Your task to perform on an android device: open app "DuckDuckGo Privacy Browser" (install if not already installed) Image 0: 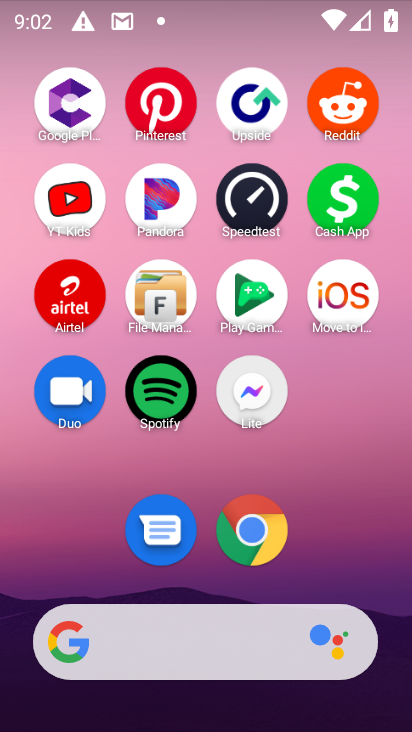
Step 0: drag from (190, 629) to (335, 2)
Your task to perform on an android device: open app "DuckDuckGo Privacy Browser" (install if not already installed) Image 1: 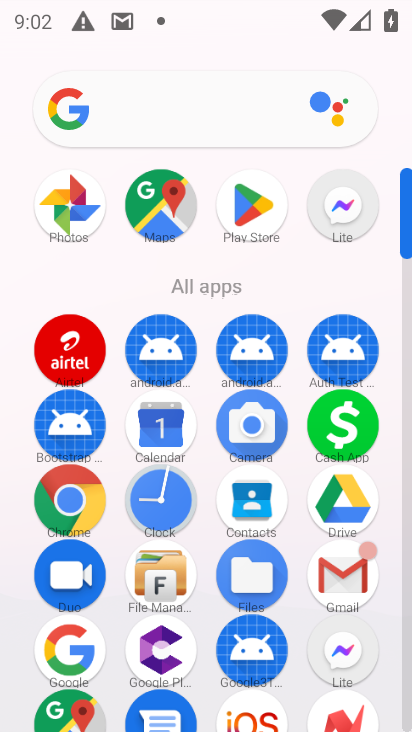
Step 1: click (252, 195)
Your task to perform on an android device: open app "DuckDuckGo Privacy Browser" (install if not already installed) Image 2: 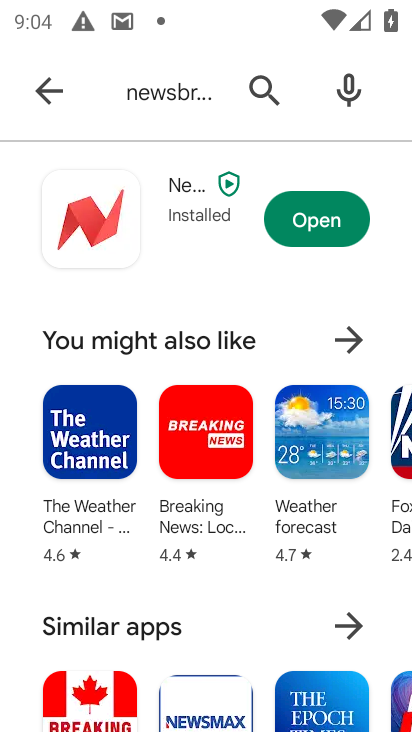
Step 2: click (253, 83)
Your task to perform on an android device: open app "DuckDuckGo Privacy Browser" (install if not already installed) Image 3: 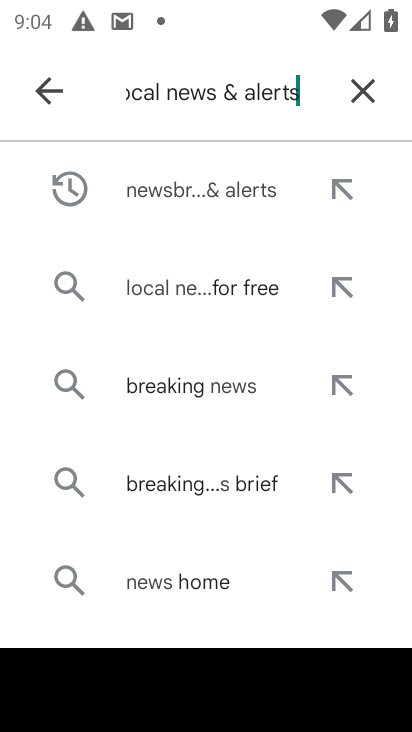
Step 3: click (371, 90)
Your task to perform on an android device: open app "DuckDuckGo Privacy Browser" (install if not already installed) Image 4: 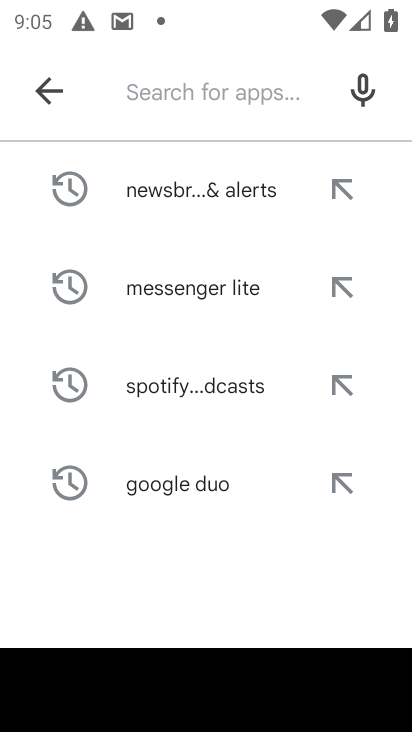
Step 4: type "duckduckgo pricacy "
Your task to perform on an android device: open app "DuckDuckGo Privacy Browser" (install if not already installed) Image 5: 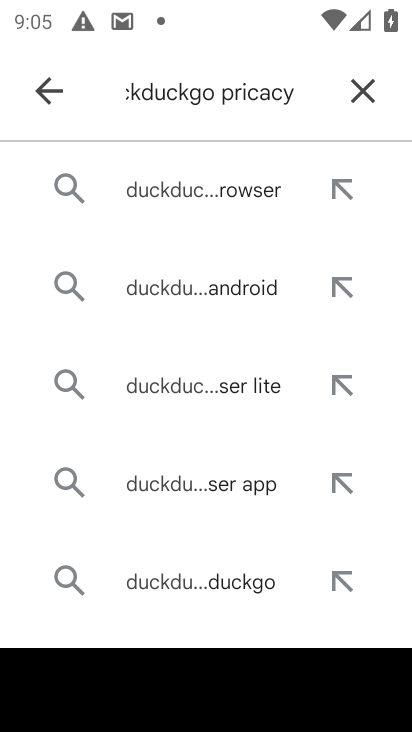
Step 5: type ""
Your task to perform on an android device: open app "DuckDuckGo Privacy Browser" (install if not already installed) Image 6: 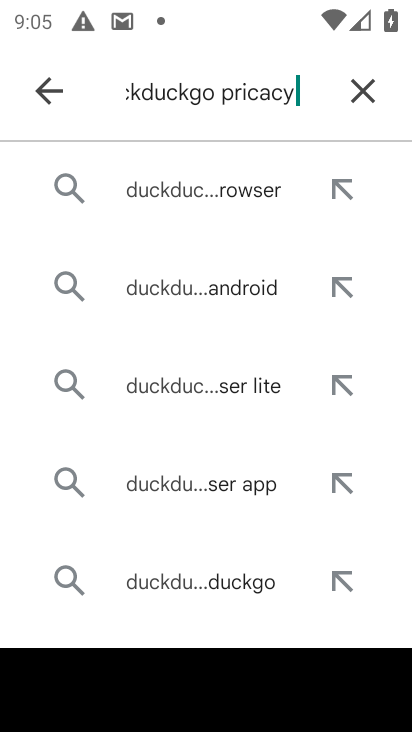
Step 6: type ""
Your task to perform on an android device: open app "DuckDuckGo Privacy Browser" (install if not already installed) Image 7: 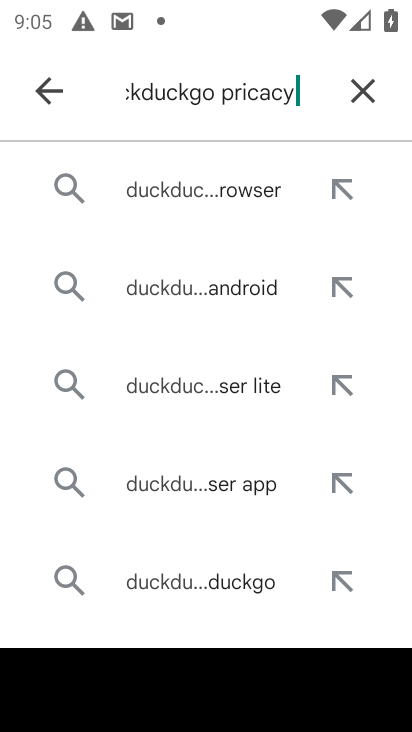
Step 7: press enter
Your task to perform on an android device: open app "DuckDuckGo Privacy Browser" (install if not already installed) Image 8: 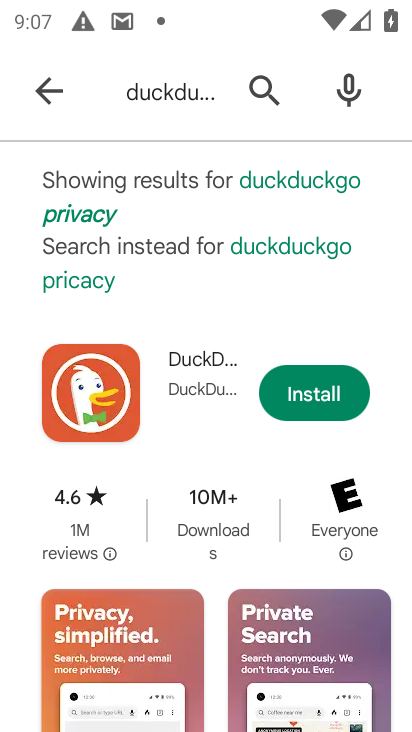
Step 8: click (334, 398)
Your task to perform on an android device: open app "DuckDuckGo Privacy Browser" (install if not already installed) Image 9: 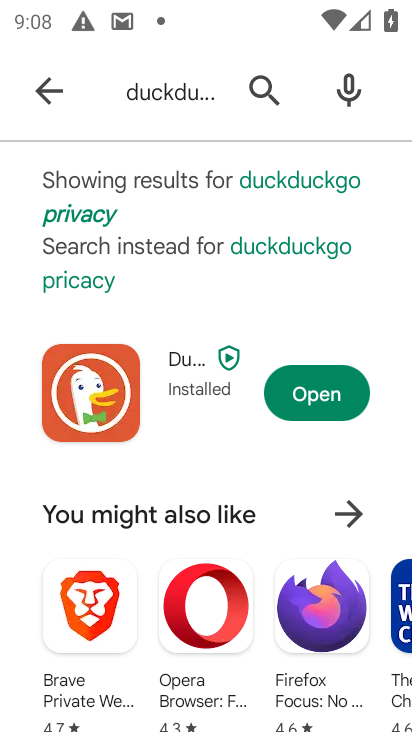
Step 9: click (299, 393)
Your task to perform on an android device: open app "DuckDuckGo Privacy Browser" (install if not already installed) Image 10: 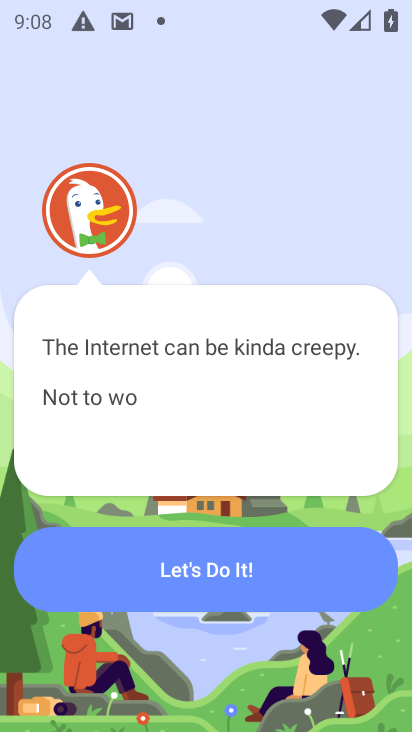
Step 10: press home button
Your task to perform on an android device: open app "DuckDuckGo Privacy Browser" (install if not already installed) Image 11: 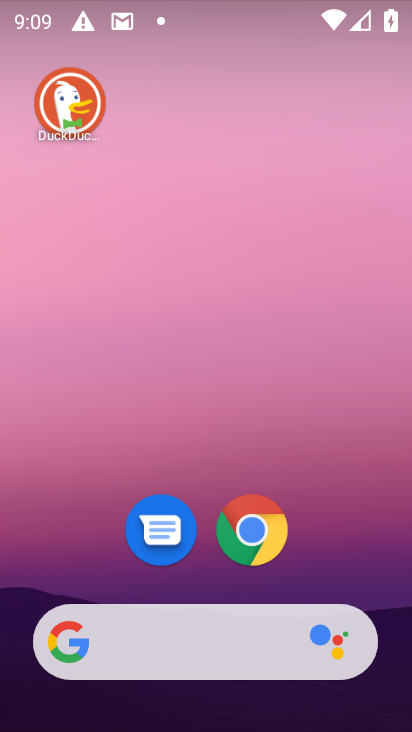
Step 11: drag from (145, 681) to (353, 128)
Your task to perform on an android device: open app "DuckDuckGo Privacy Browser" (install if not already installed) Image 12: 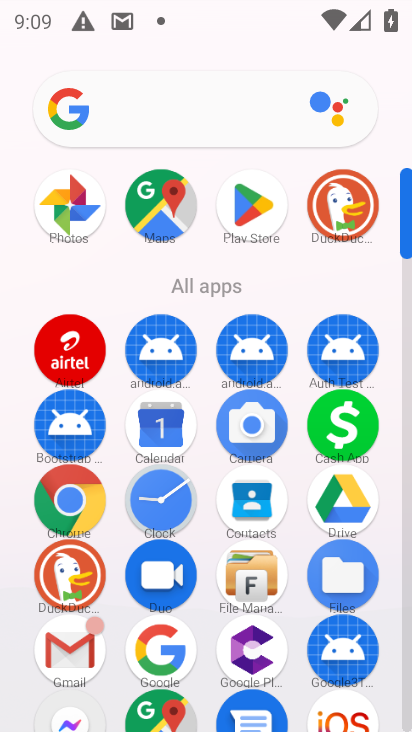
Step 12: click (331, 202)
Your task to perform on an android device: open app "DuckDuckGo Privacy Browser" (install if not already installed) Image 13: 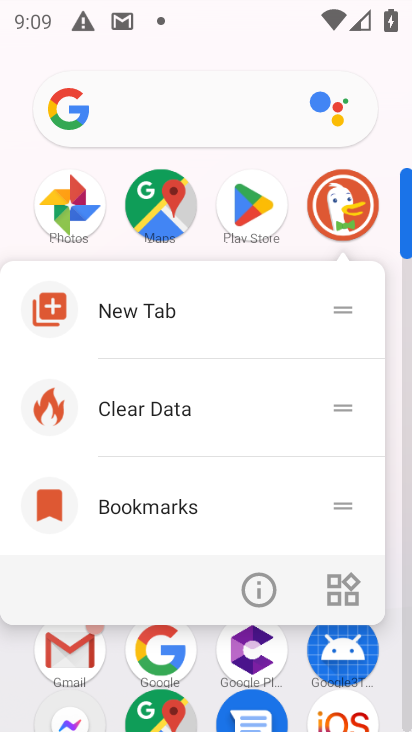
Step 13: click (331, 202)
Your task to perform on an android device: open app "DuckDuckGo Privacy Browser" (install if not already installed) Image 14: 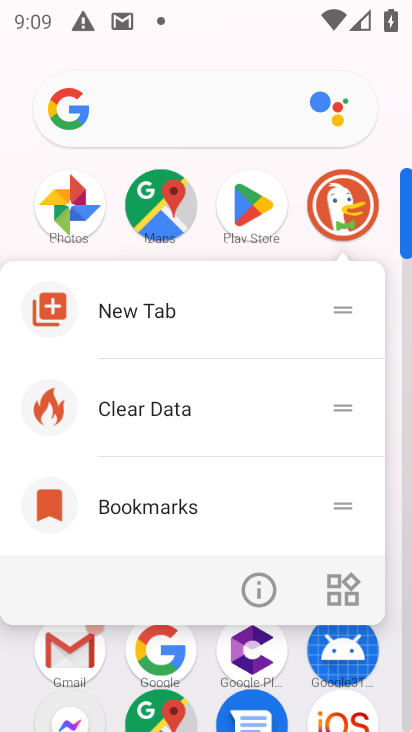
Step 14: click (331, 202)
Your task to perform on an android device: open app "DuckDuckGo Privacy Browser" (install if not already installed) Image 15: 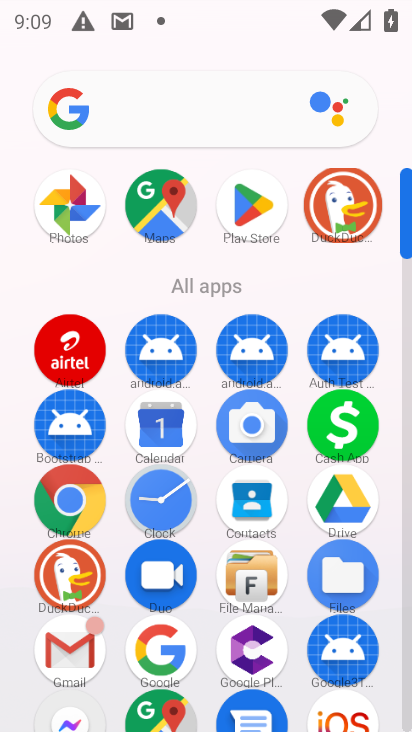
Step 15: click (331, 202)
Your task to perform on an android device: open app "DuckDuckGo Privacy Browser" (install if not already installed) Image 16: 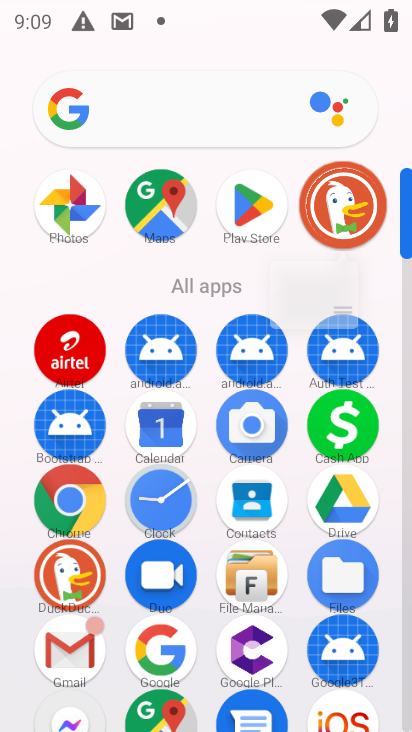
Step 16: click (335, 198)
Your task to perform on an android device: open app "DuckDuckGo Privacy Browser" (install if not already installed) Image 17: 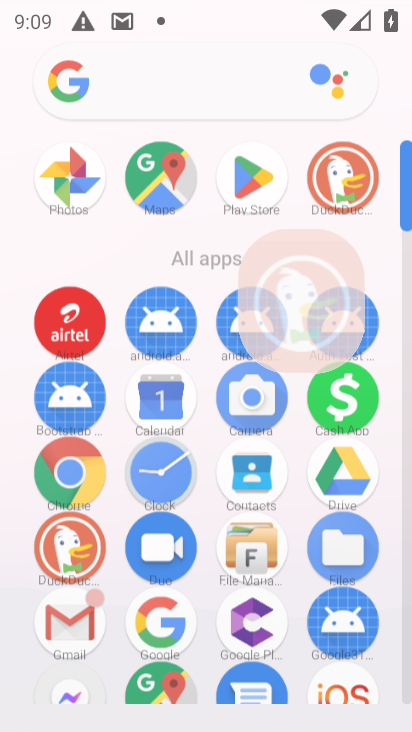
Step 17: click (353, 169)
Your task to perform on an android device: open app "DuckDuckGo Privacy Browser" (install if not already installed) Image 18: 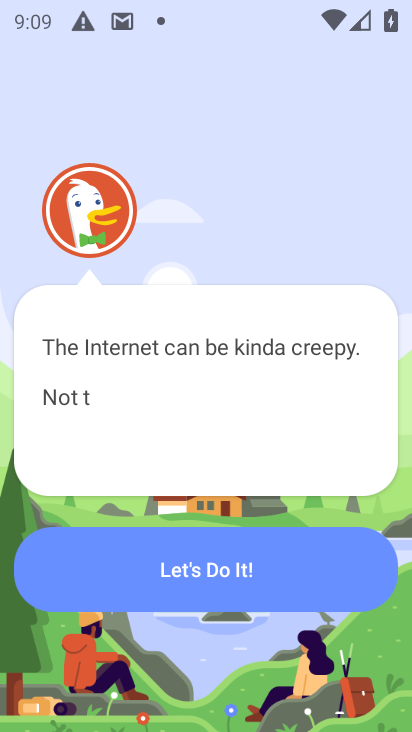
Step 18: task complete